Your task to perform on an android device: Empty the shopping cart on ebay.com. Image 0: 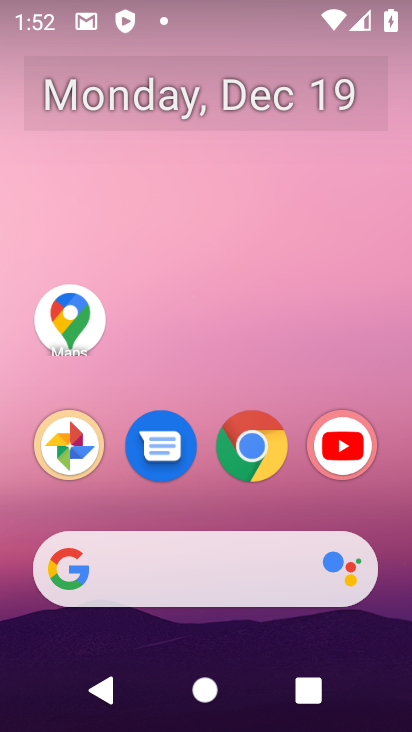
Step 0: click (246, 580)
Your task to perform on an android device: Empty the shopping cart on ebay.com. Image 1: 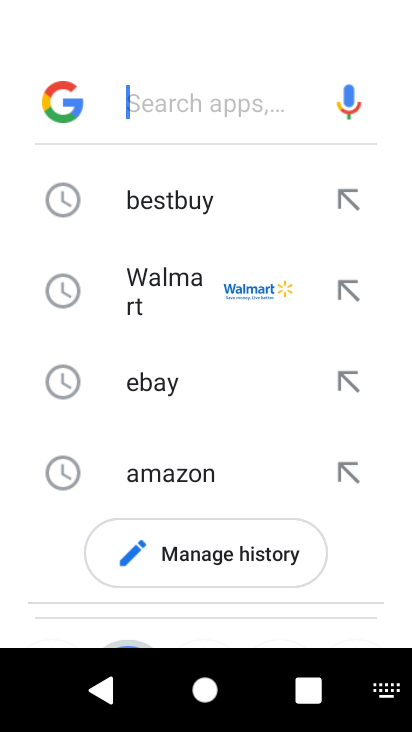
Step 1: click (162, 397)
Your task to perform on an android device: Empty the shopping cart on ebay.com. Image 2: 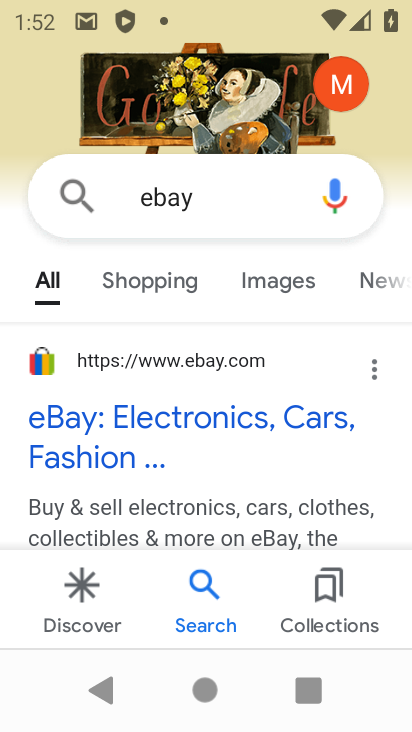
Step 2: click (154, 409)
Your task to perform on an android device: Empty the shopping cart on ebay.com. Image 3: 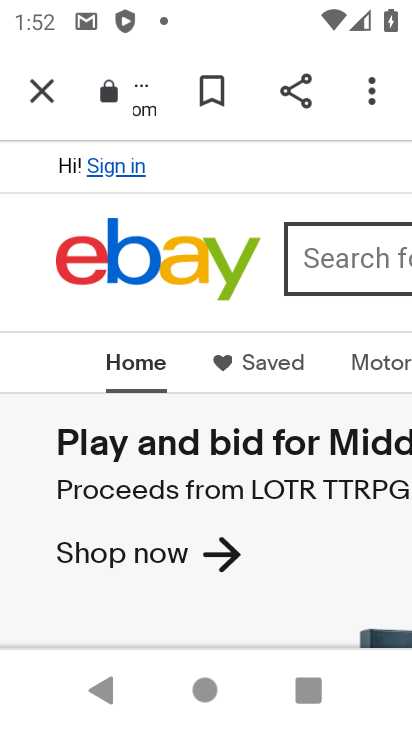
Step 3: task complete